Your task to perform on an android device: uninstall "Pandora - Music & Podcasts" Image 0: 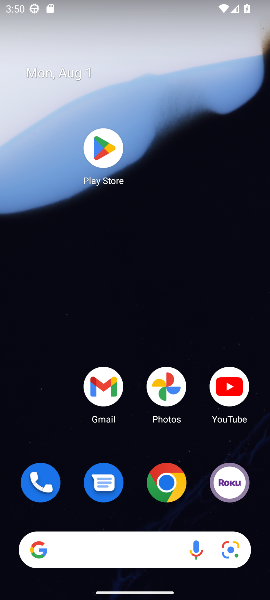
Step 0: press home button
Your task to perform on an android device: uninstall "Pandora - Music & Podcasts" Image 1: 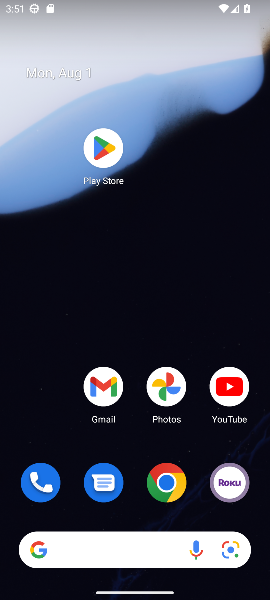
Step 1: click (106, 151)
Your task to perform on an android device: uninstall "Pandora - Music & Podcasts" Image 2: 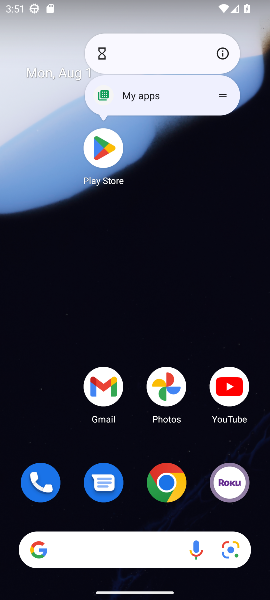
Step 2: click (101, 145)
Your task to perform on an android device: uninstall "Pandora - Music & Podcasts" Image 3: 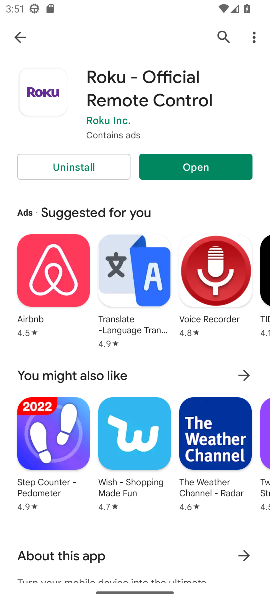
Step 3: click (220, 37)
Your task to perform on an android device: uninstall "Pandora - Music & Podcasts" Image 4: 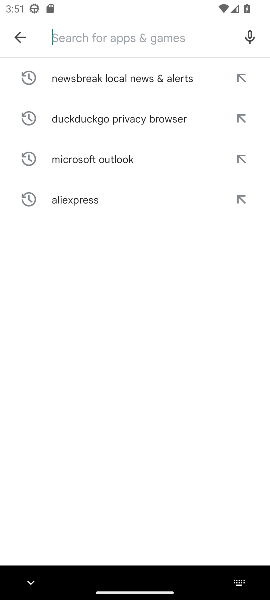
Step 4: type "Pandora - Music & Podcasts"
Your task to perform on an android device: uninstall "Pandora - Music & Podcasts" Image 5: 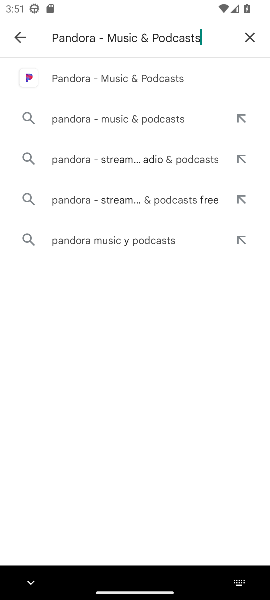
Step 5: click (158, 75)
Your task to perform on an android device: uninstall "Pandora - Music & Podcasts" Image 6: 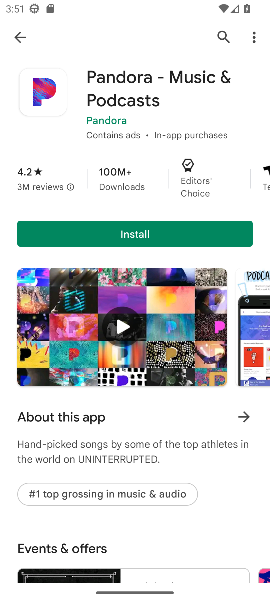
Step 6: task complete